Your task to perform on an android device: open the mobile data screen to see how much data has been used Image 0: 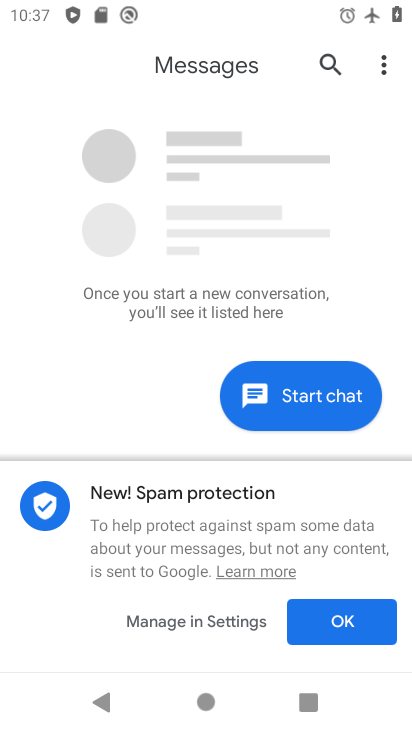
Step 0: press home button
Your task to perform on an android device: open the mobile data screen to see how much data has been used Image 1: 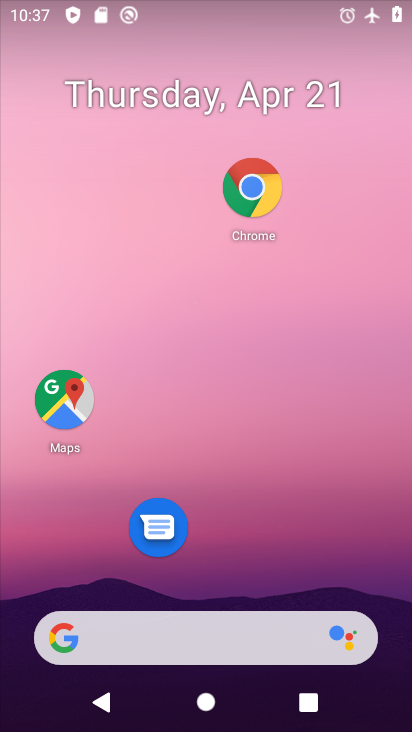
Step 1: drag from (253, 574) to (318, 127)
Your task to perform on an android device: open the mobile data screen to see how much data has been used Image 2: 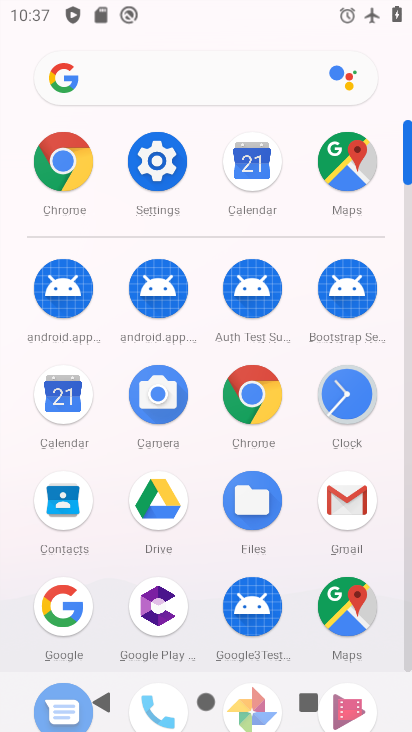
Step 2: click (171, 182)
Your task to perform on an android device: open the mobile data screen to see how much data has been used Image 3: 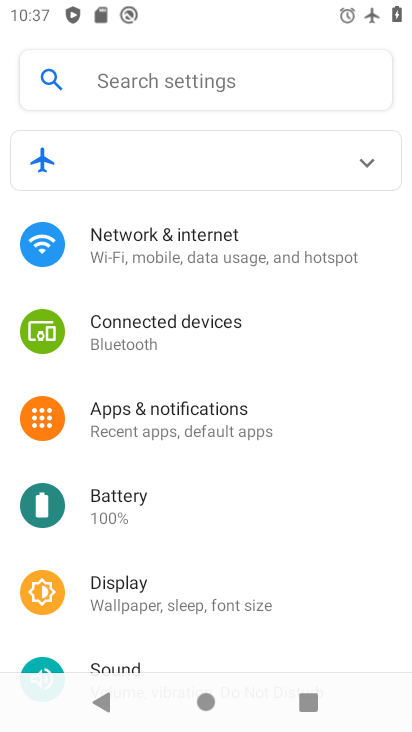
Step 3: click (254, 262)
Your task to perform on an android device: open the mobile data screen to see how much data has been used Image 4: 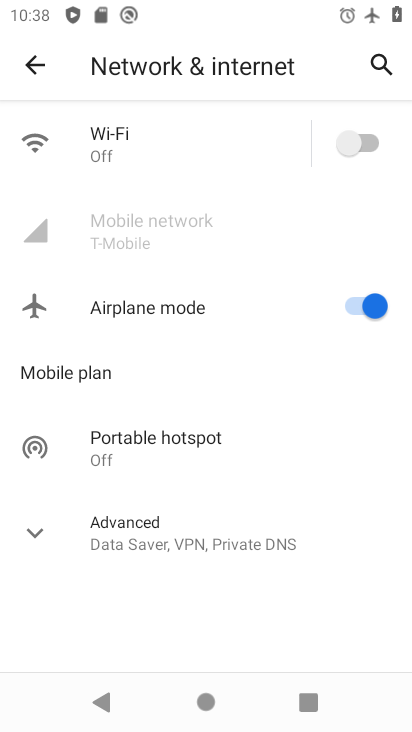
Step 4: click (222, 235)
Your task to perform on an android device: open the mobile data screen to see how much data has been used Image 5: 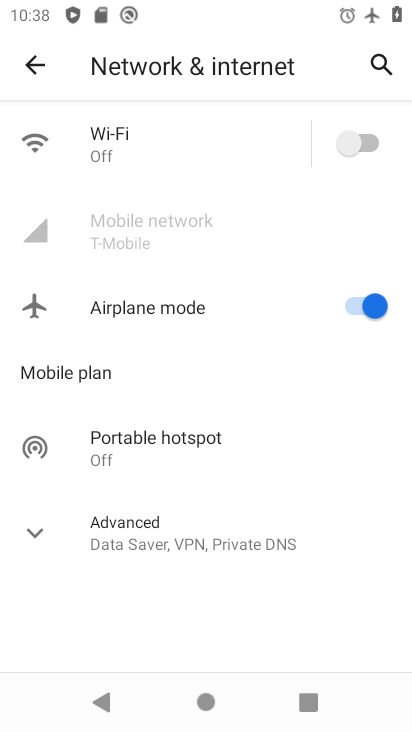
Step 5: click (264, 228)
Your task to perform on an android device: open the mobile data screen to see how much data has been used Image 6: 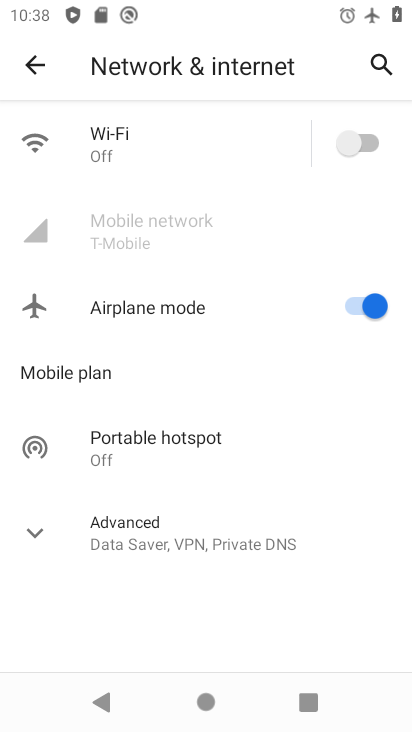
Step 6: task complete